Your task to perform on an android device: Add logitech g502 to the cart on amazon, then select checkout. Image 0: 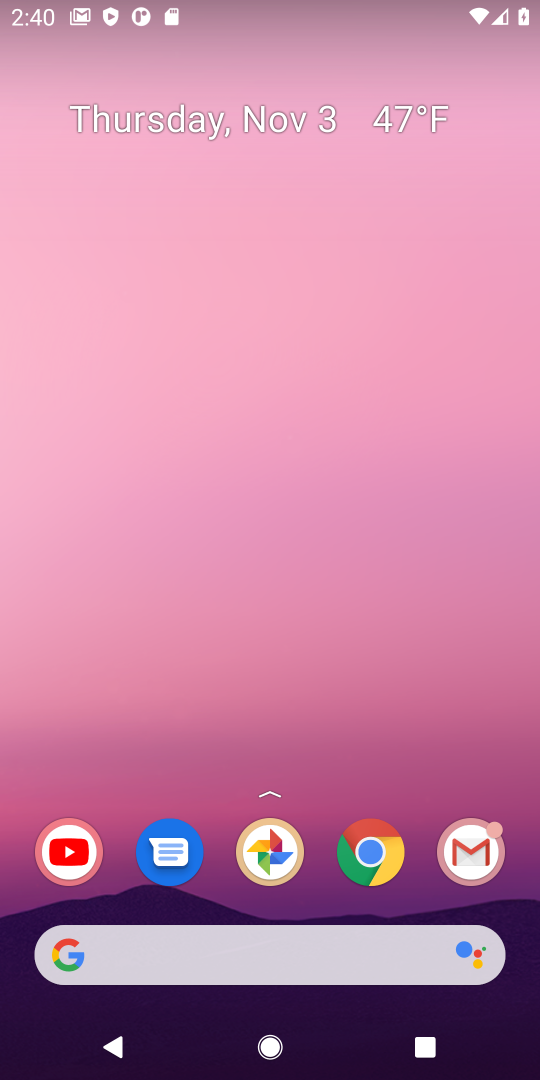
Step 0: click (386, 859)
Your task to perform on an android device: Add logitech g502 to the cart on amazon, then select checkout. Image 1: 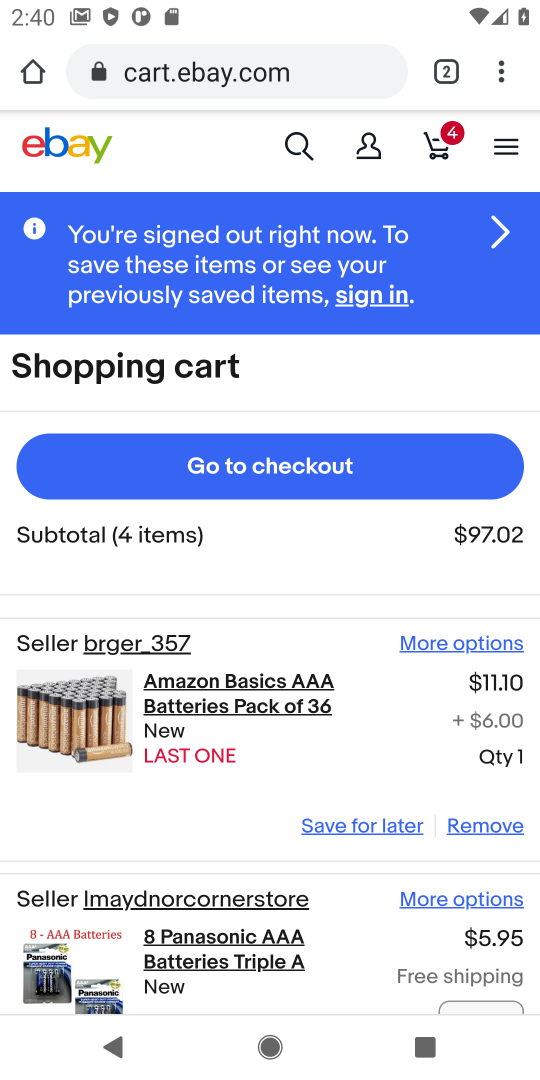
Step 1: click (225, 76)
Your task to perform on an android device: Add logitech g502 to the cart on amazon, then select checkout. Image 2: 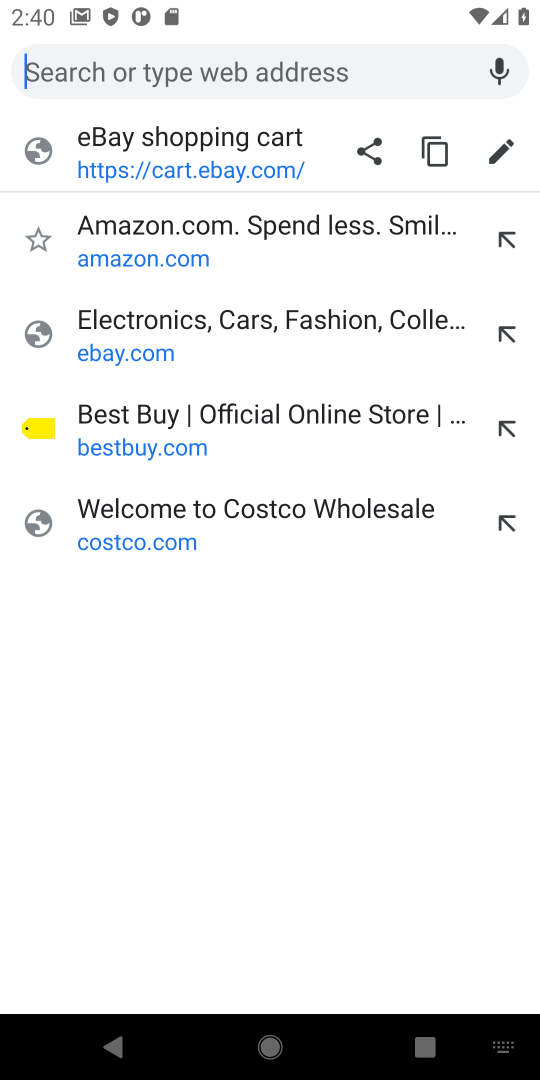
Step 2: click (147, 279)
Your task to perform on an android device: Add logitech g502 to the cart on amazon, then select checkout. Image 3: 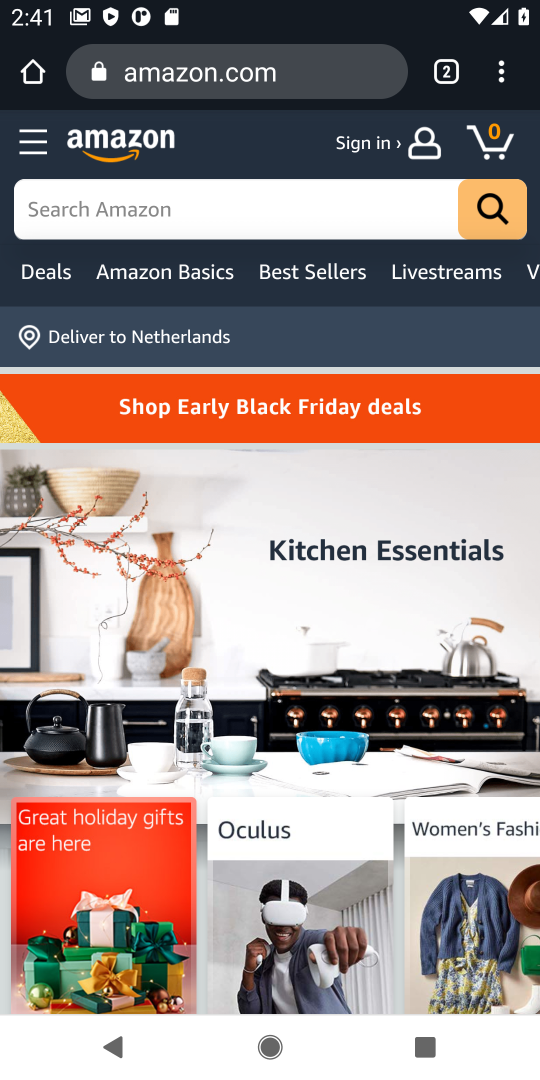
Step 3: click (321, 210)
Your task to perform on an android device: Add logitech g502 to the cart on amazon, then select checkout. Image 4: 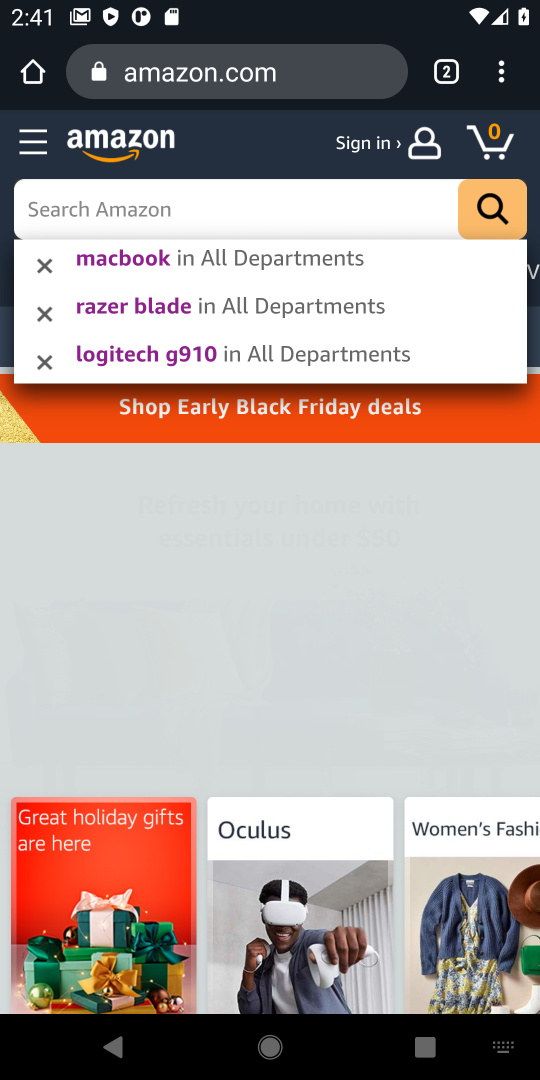
Step 4: type "logitech g502"
Your task to perform on an android device: Add logitech g502 to the cart on amazon, then select checkout. Image 5: 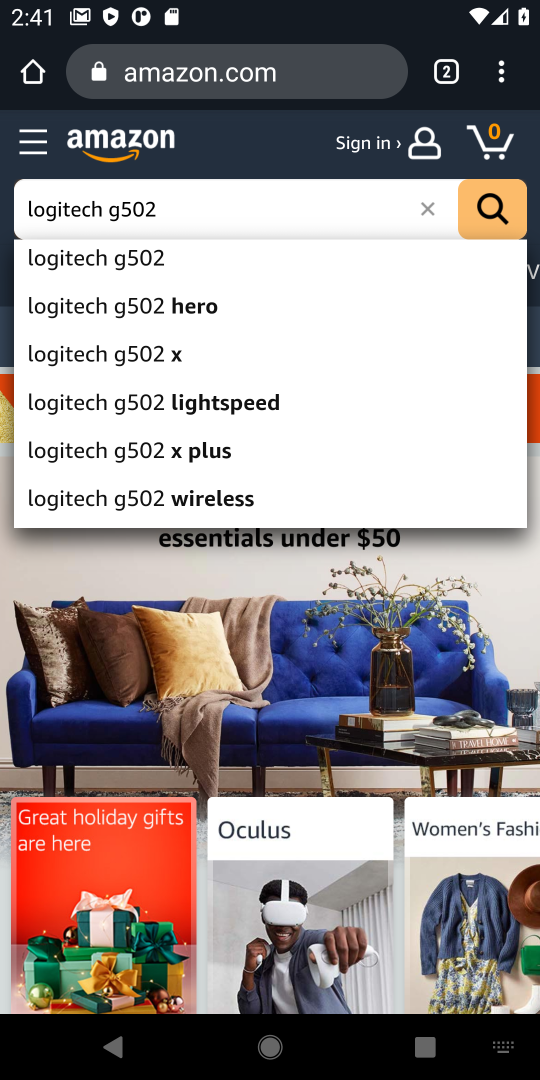
Step 5: click (136, 259)
Your task to perform on an android device: Add logitech g502 to the cart on amazon, then select checkout. Image 6: 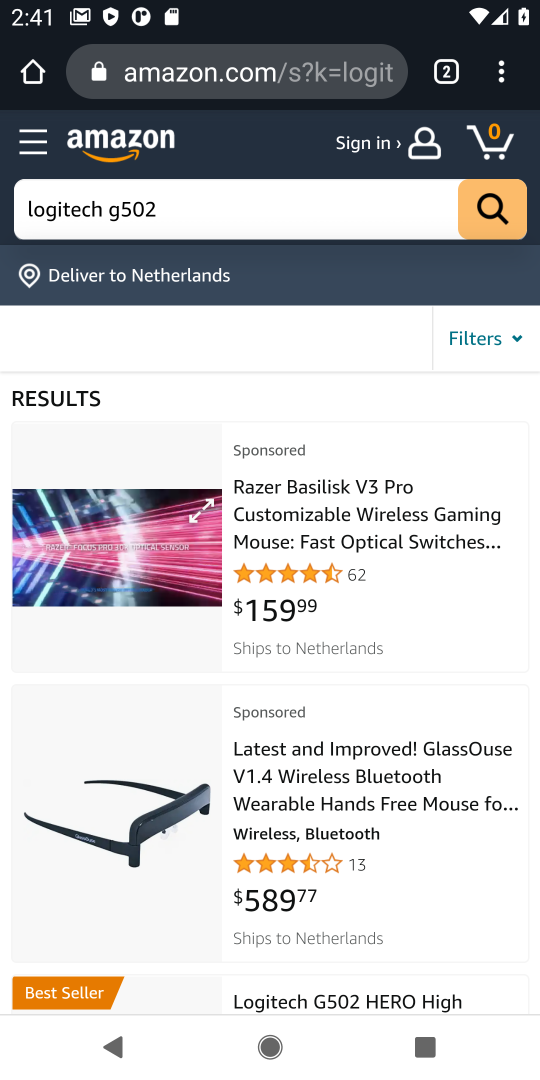
Step 6: drag from (319, 857) to (299, 603)
Your task to perform on an android device: Add logitech g502 to the cart on amazon, then select checkout. Image 7: 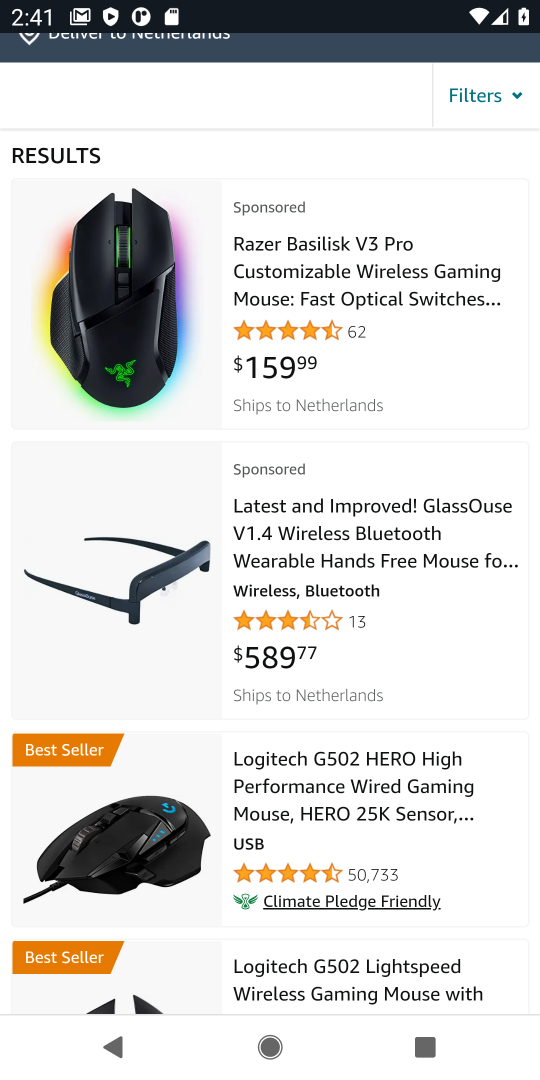
Step 7: click (269, 815)
Your task to perform on an android device: Add logitech g502 to the cart on amazon, then select checkout. Image 8: 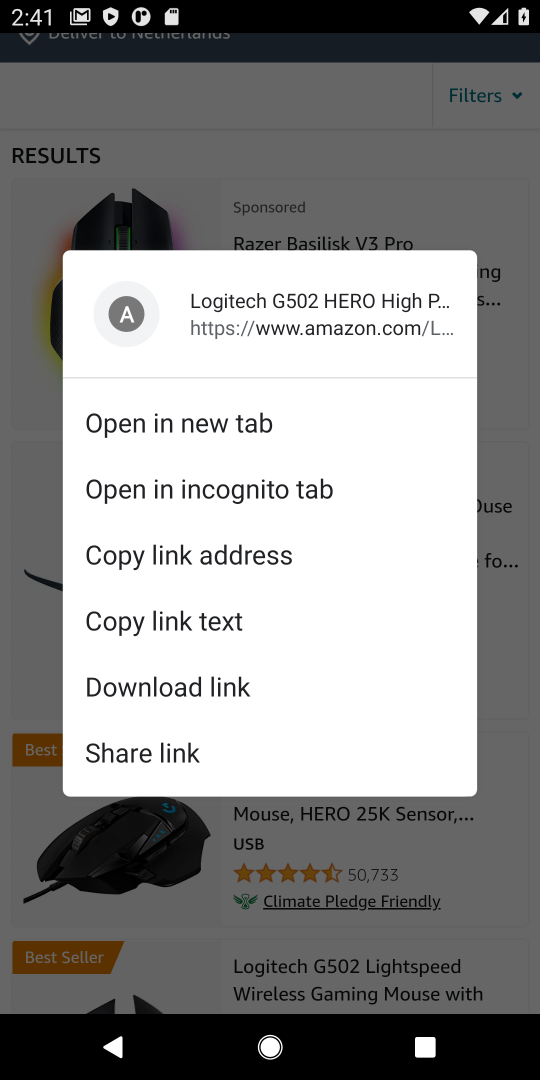
Step 8: click (225, 828)
Your task to perform on an android device: Add logitech g502 to the cart on amazon, then select checkout. Image 9: 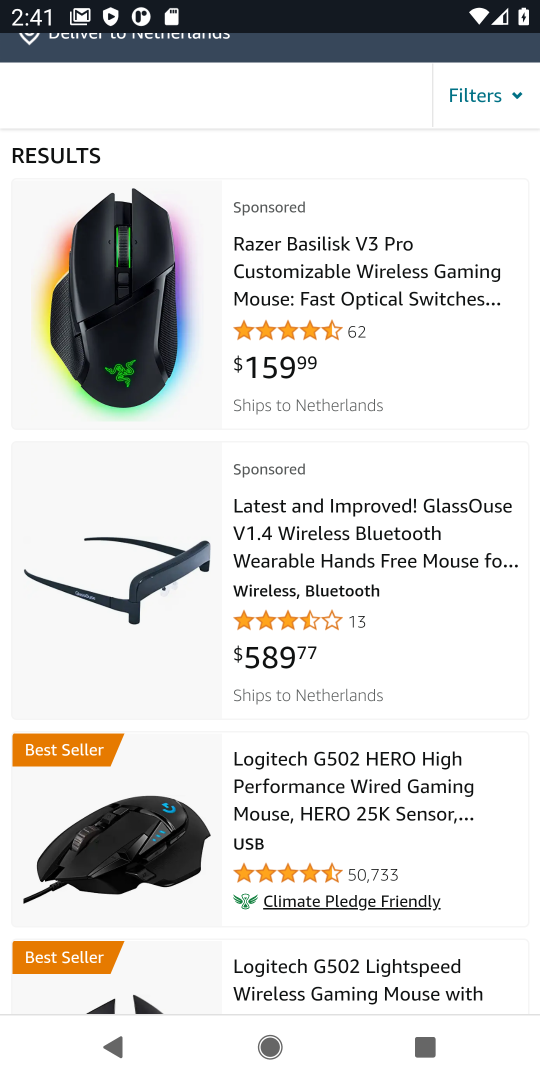
Step 9: click (274, 821)
Your task to perform on an android device: Add logitech g502 to the cart on amazon, then select checkout. Image 10: 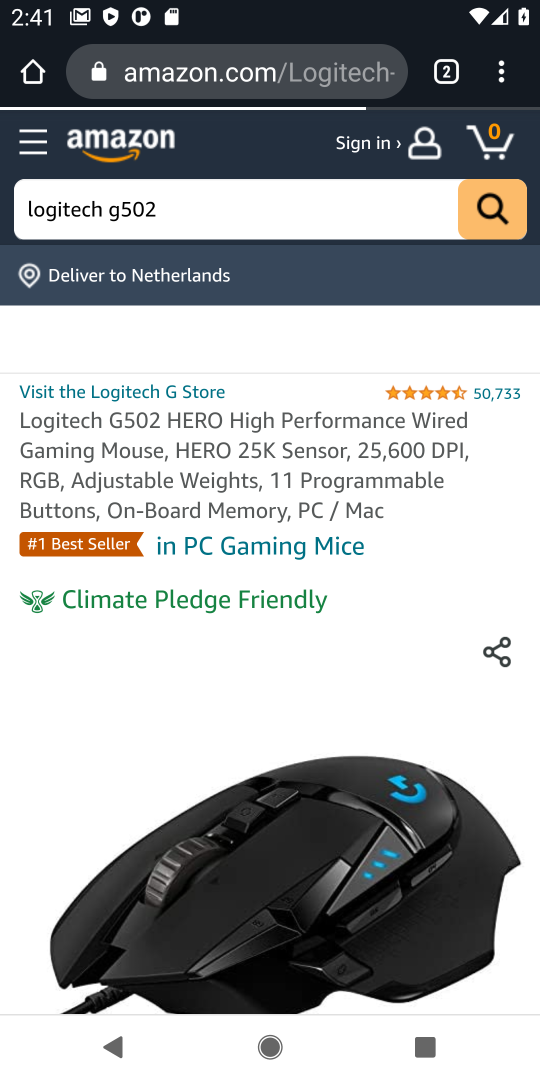
Step 10: drag from (240, 732) to (254, 247)
Your task to perform on an android device: Add logitech g502 to the cart on amazon, then select checkout. Image 11: 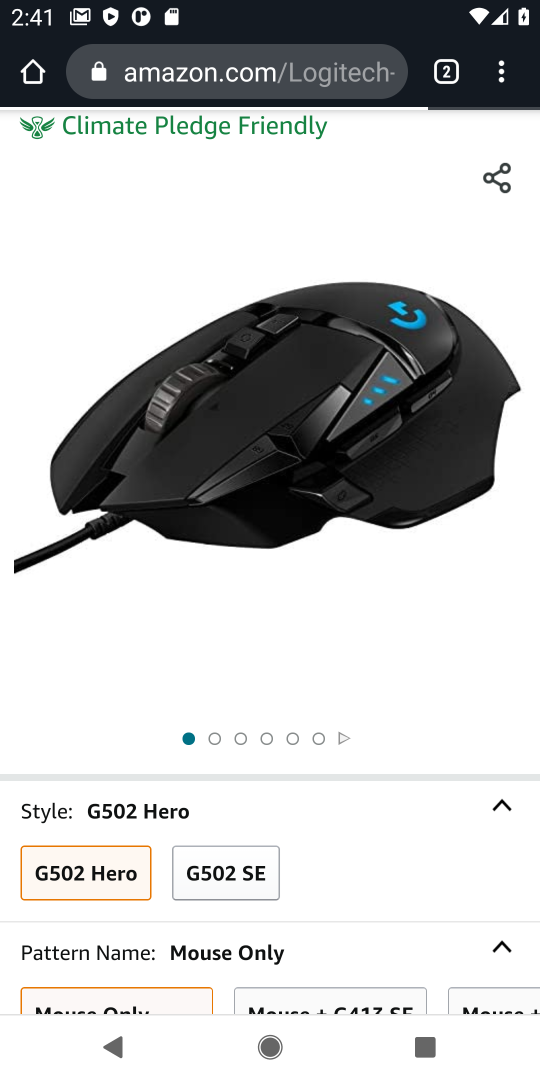
Step 11: drag from (315, 863) to (316, 388)
Your task to perform on an android device: Add logitech g502 to the cart on amazon, then select checkout. Image 12: 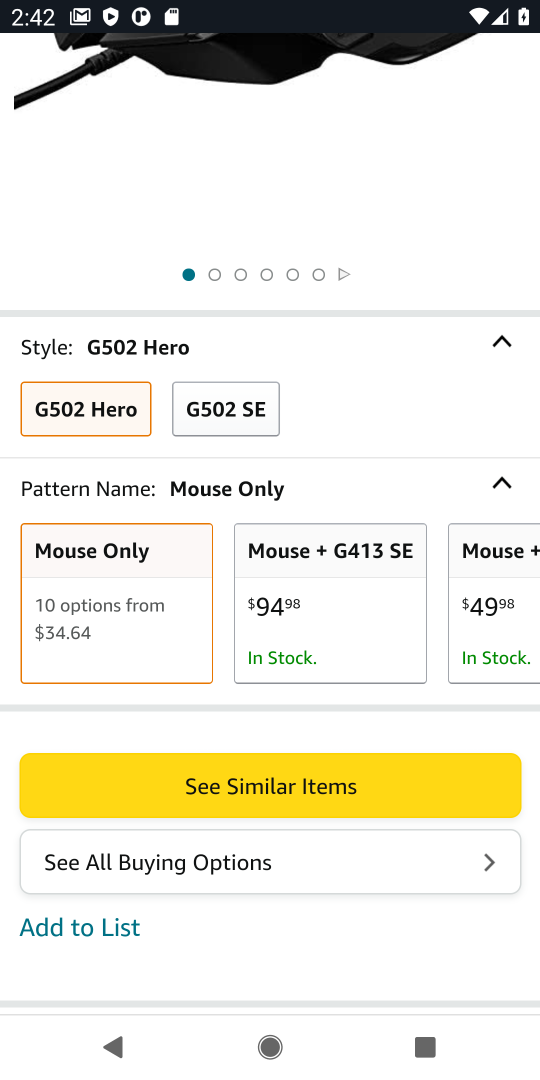
Step 12: drag from (331, 410) to (331, 1008)
Your task to perform on an android device: Add logitech g502 to the cart on amazon, then select checkout. Image 13: 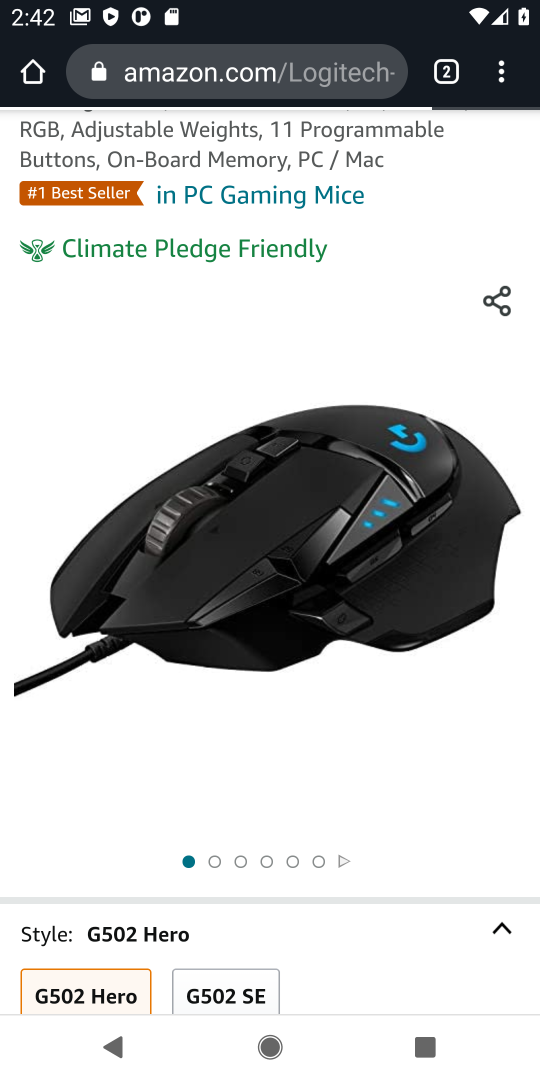
Step 13: press back button
Your task to perform on an android device: Add logitech g502 to the cart on amazon, then select checkout. Image 14: 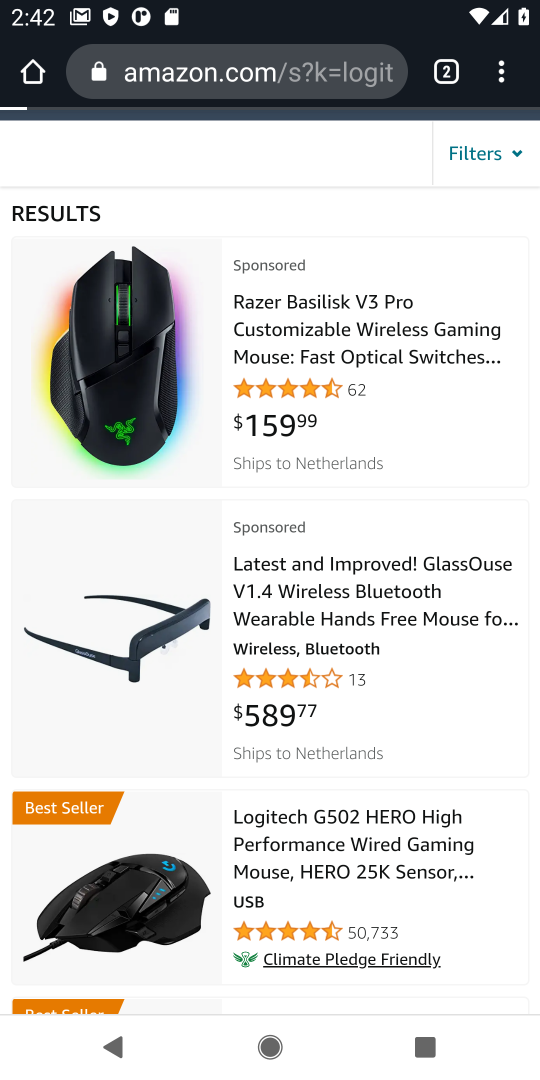
Step 14: drag from (303, 776) to (271, 398)
Your task to perform on an android device: Add logitech g502 to the cart on amazon, then select checkout. Image 15: 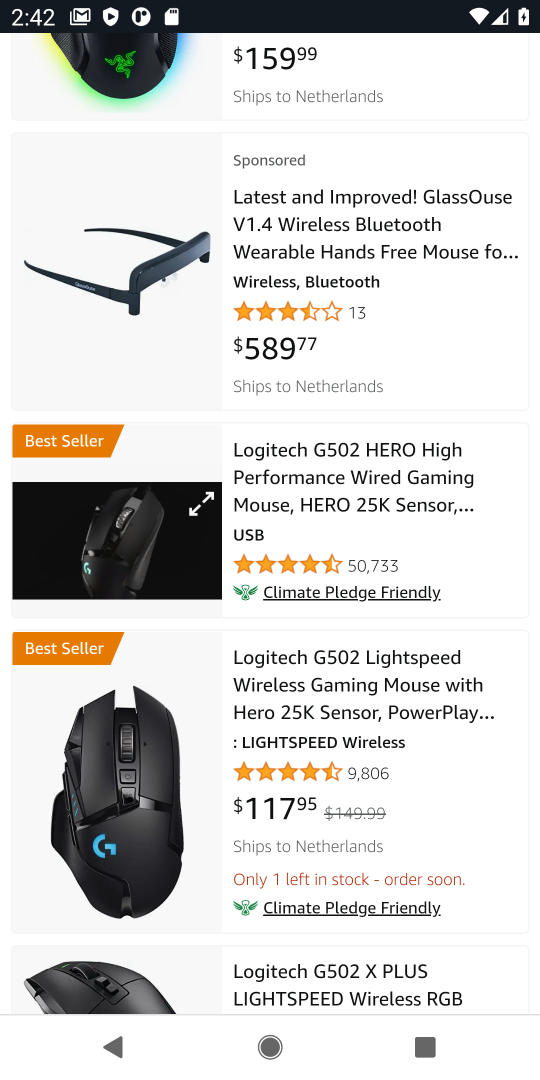
Step 15: click (239, 752)
Your task to perform on an android device: Add logitech g502 to the cart on amazon, then select checkout. Image 16: 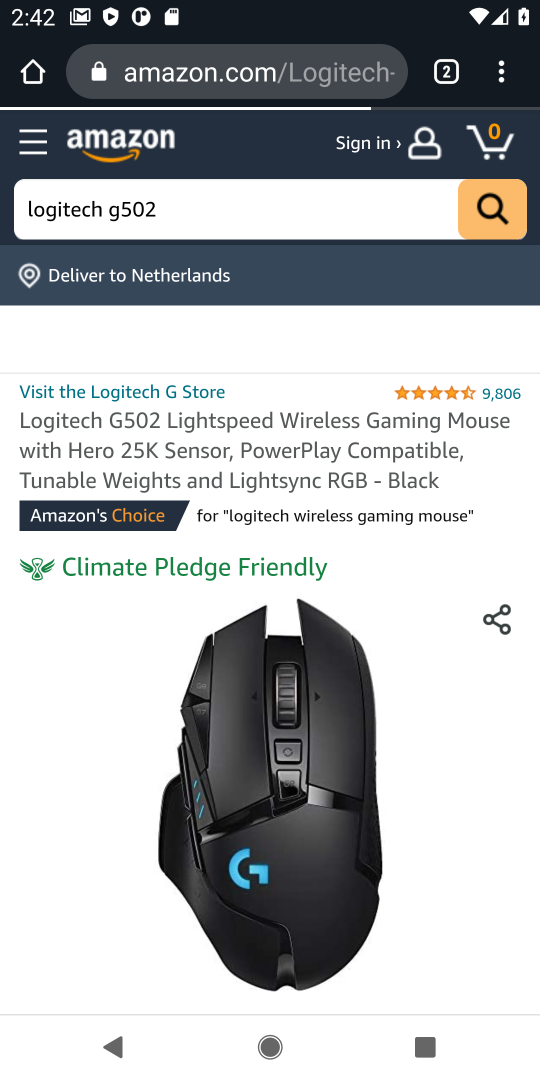
Step 16: drag from (236, 756) to (274, 273)
Your task to perform on an android device: Add logitech g502 to the cart on amazon, then select checkout. Image 17: 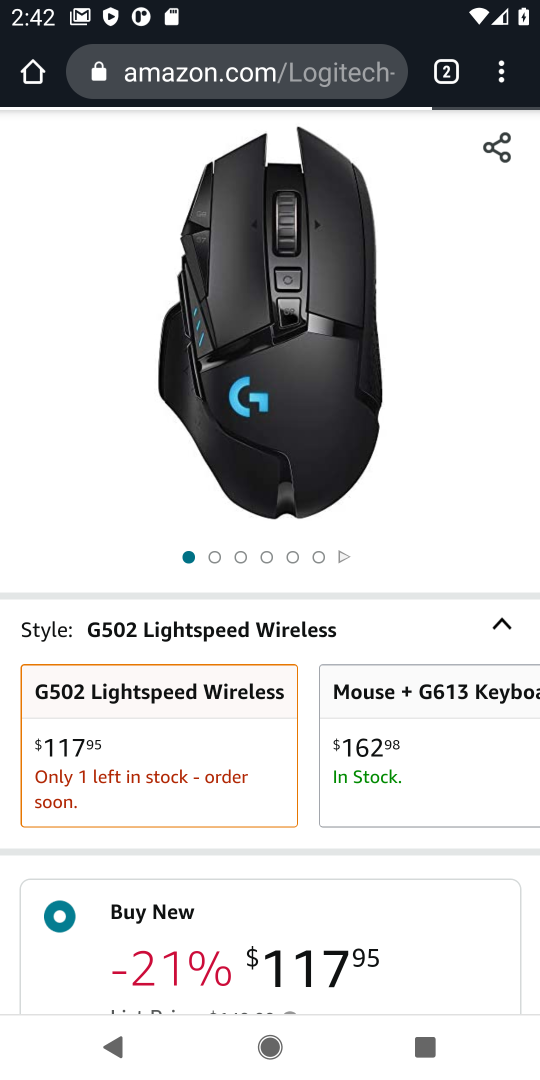
Step 17: drag from (267, 852) to (281, 281)
Your task to perform on an android device: Add logitech g502 to the cart on amazon, then select checkout. Image 18: 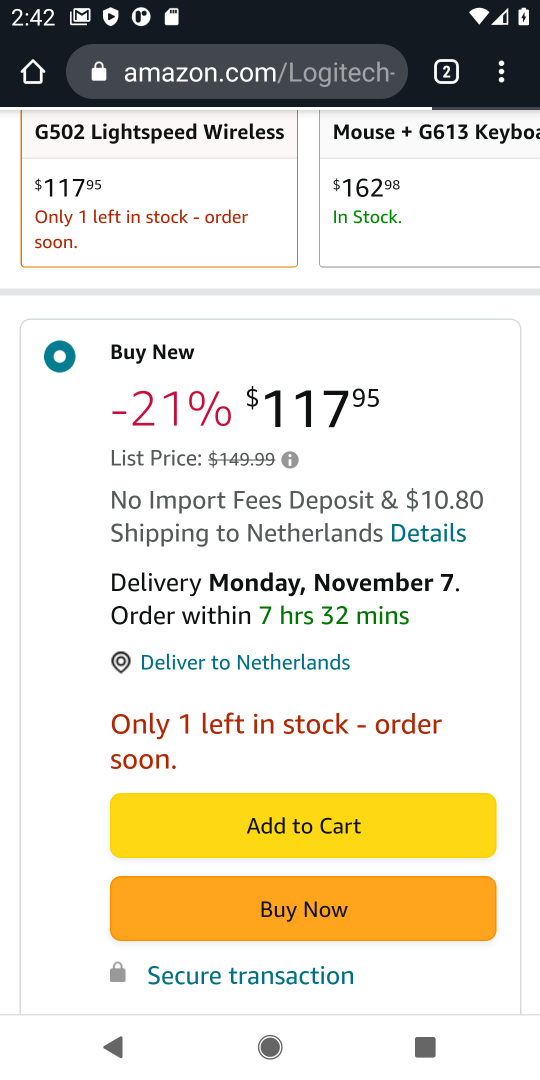
Step 18: click (269, 816)
Your task to perform on an android device: Add logitech g502 to the cart on amazon, then select checkout. Image 19: 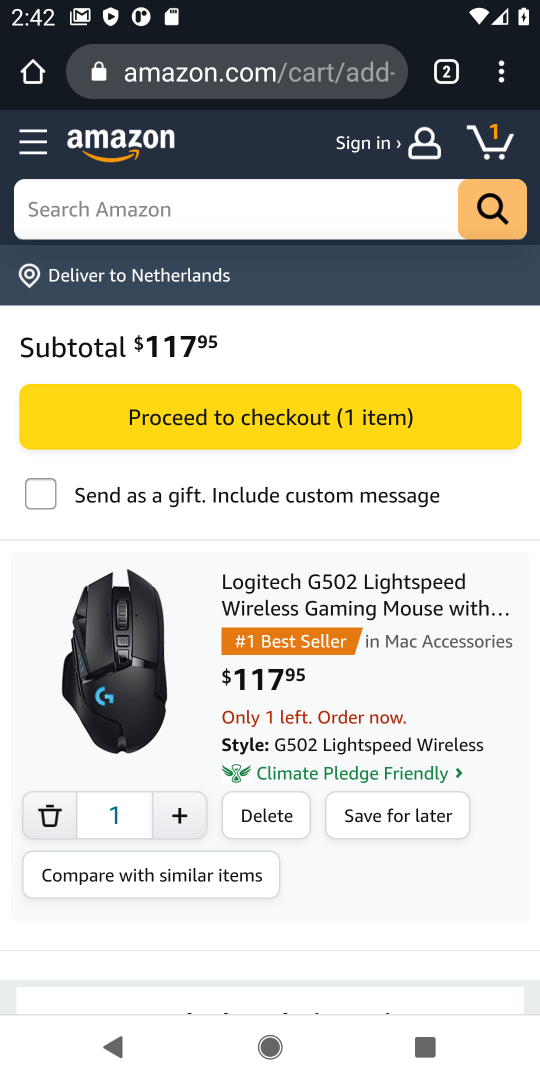
Step 19: click (252, 415)
Your task to perform on an android device: Add logitech g502 to the cart on amazon, then select checkout. Image 20: 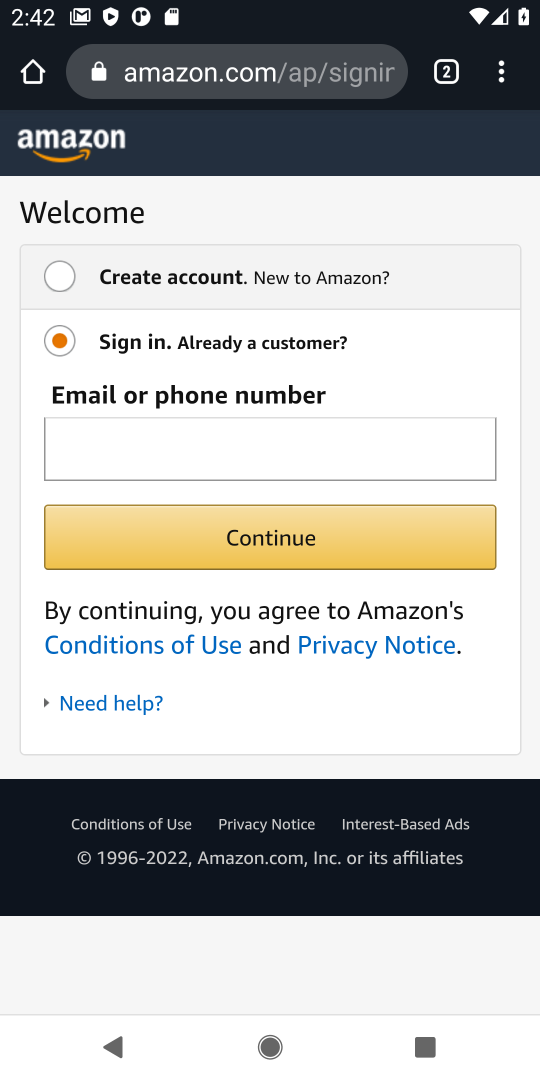
Step 20: task complete